Your task to perform on an android device: toggle priority inbox in the gmail app Image 0: 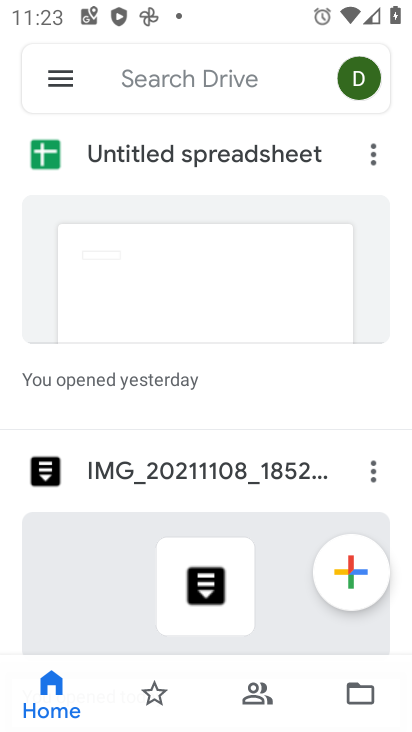
Step 0: press home button
Your task to perform on an android device: toggle priority inbox in the gmail app Image 1: 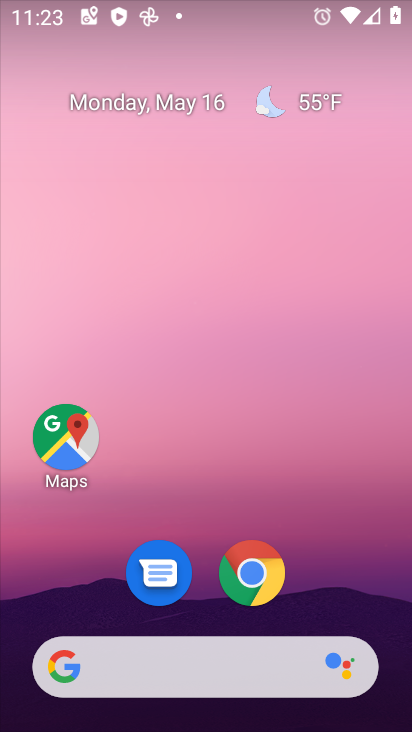
Step 1: drag from (371, 559) to (284, 114)
Your task to perform on an android device: toggle priority inbox in the gmail app Image 2: 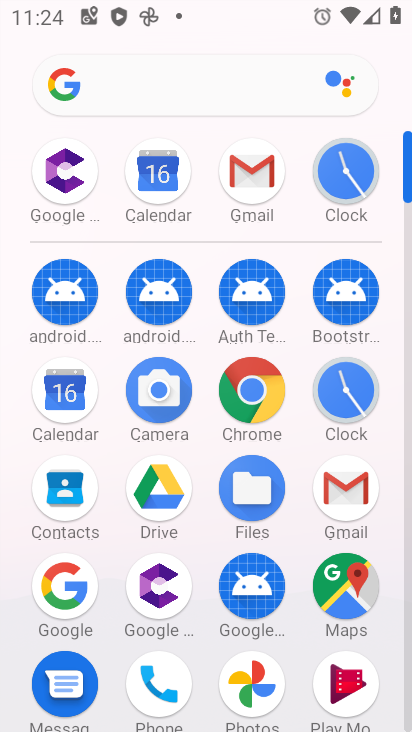
Step 2: click (337, 494)
Your task to perform on an android device: toggle priority inbox in the gmail app Image 3: 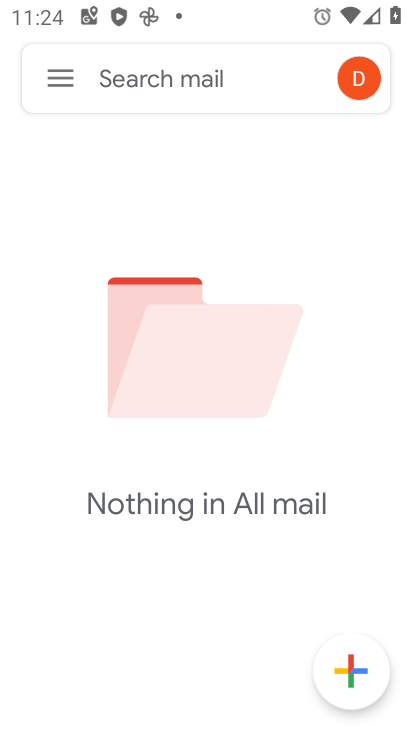
Step 3: click (72, 106)
Your task to perform on an android device: toggle priority inbox in the gmail app Image 4: 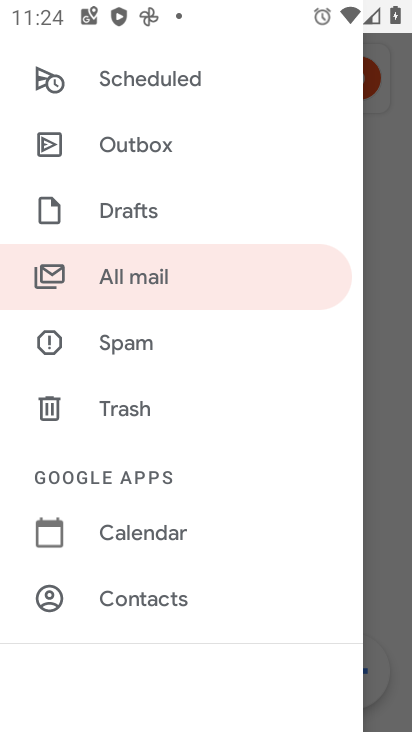
Step 4: drag from (189, 605) to (167, 344)
Your task to perform on an android device: toggle priority inbox in the gmail app Image 5: 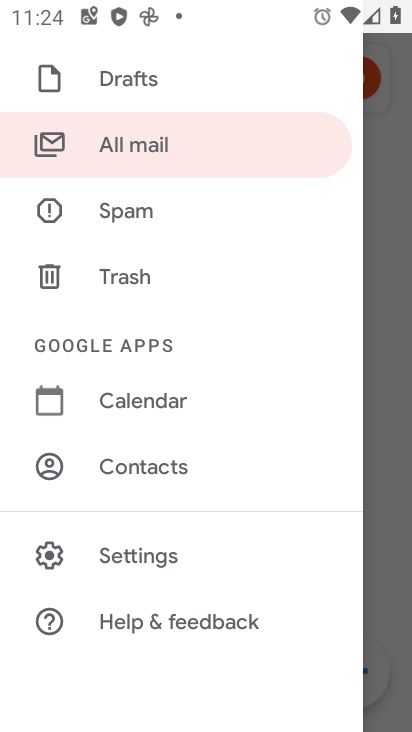
Step 5: click (118, 548)
Your task to perform on an android device: toggle priority inbox in the gmail app Image 6: 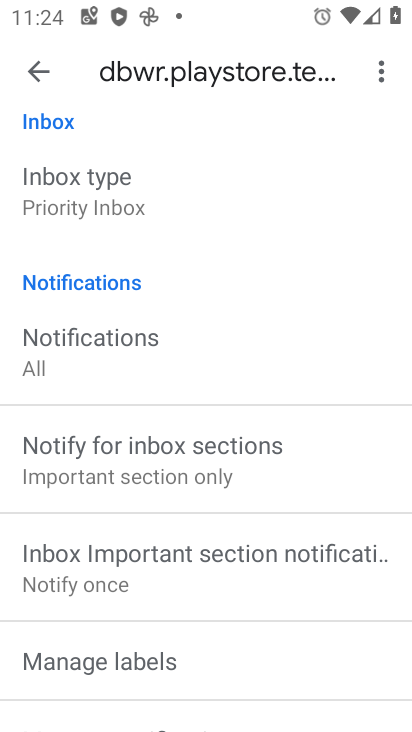
Step 6: click (144, 185)
Your task to perform on an android device: toggle priority inbox in the gmail app Image 7: 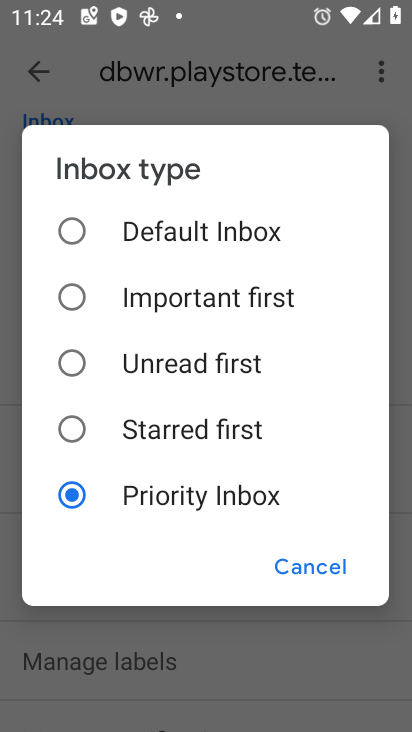
Step 7: click (147, 228)
Your task to perform on an android device: toggle priority inbox in the gmail app Image 8: 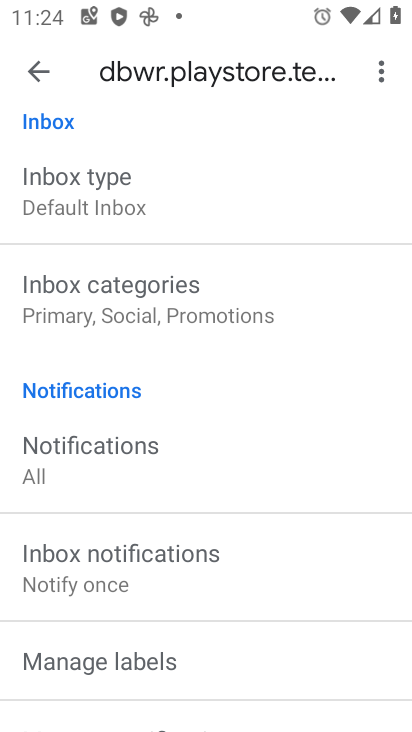
Step 8: task complete